Your task to perform on an android device: What's the weather going to be tomorrow? Image 0: 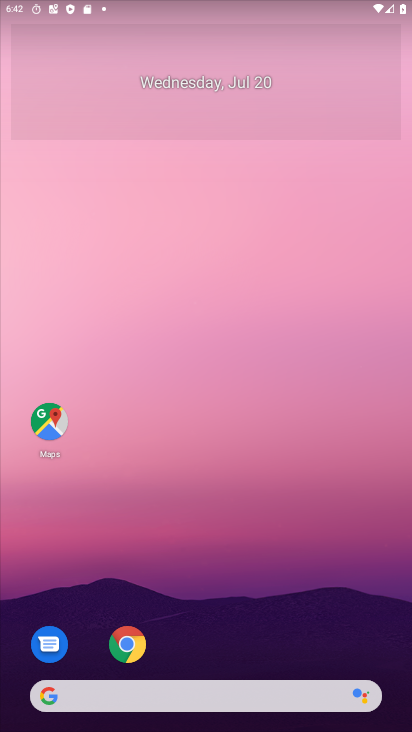
Step 0: press home button
Your task to perform on an android device: What's the weather going to be tomorrow? Image 1: 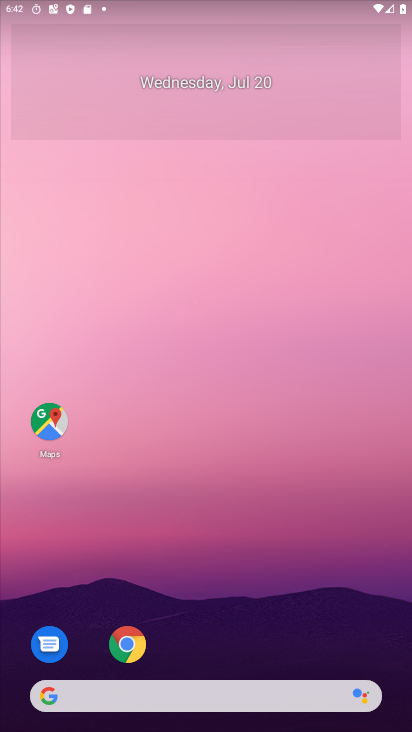
Step 1: click (41, 700)
Your task to perform on an android device: What's the weather going to be tomorrow? Image 2: 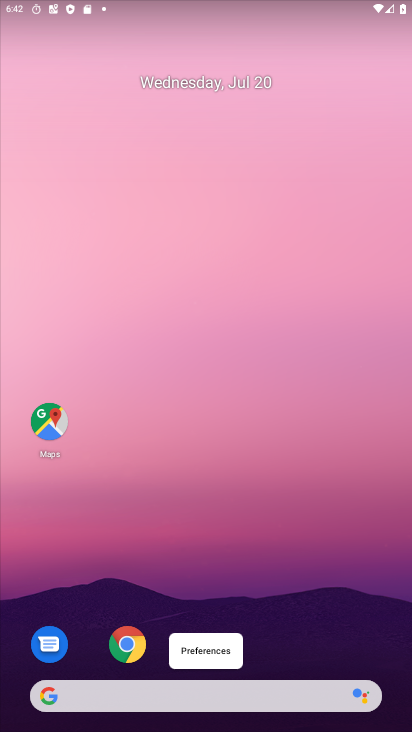
Step 2: click (42, 692)
Your task to perform on an android device: What's the weather going to be tomorrow? Image 3: 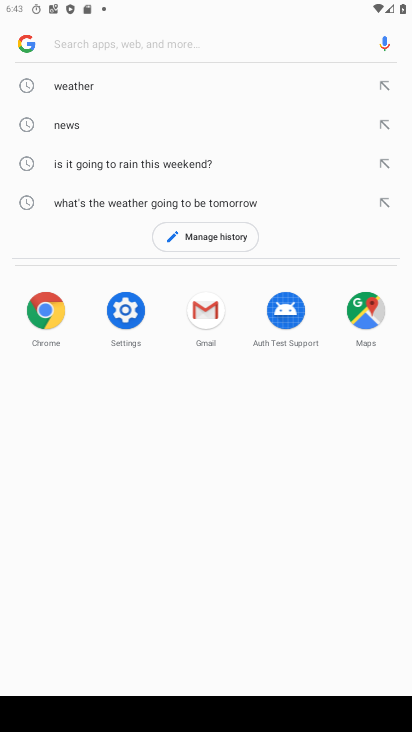
Step 3: type " weather going to be tomorrow?"
Your task to perform on an android device: What's the weather going to be tomorrow? Image 4: 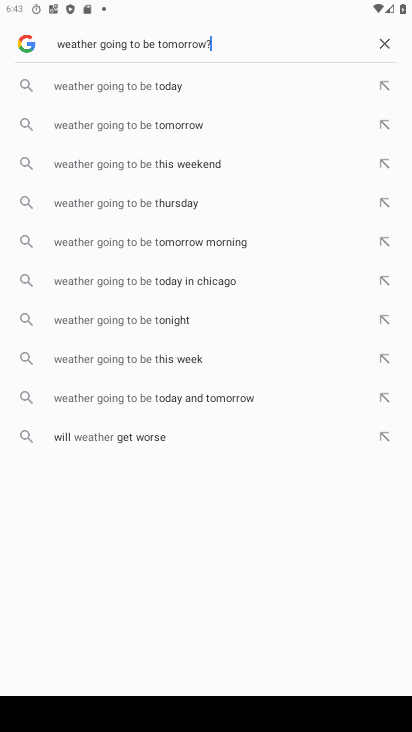
Step 4: press enter
Your task to perform on an android device: What's the weather going to be tomorrow? Image 5: 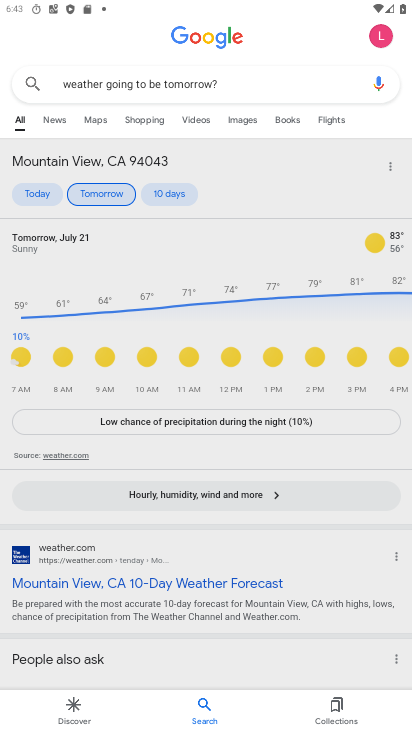
Step 5: task complete